Your task to perform on an android device: check the backup settings in the google photos Image 0: 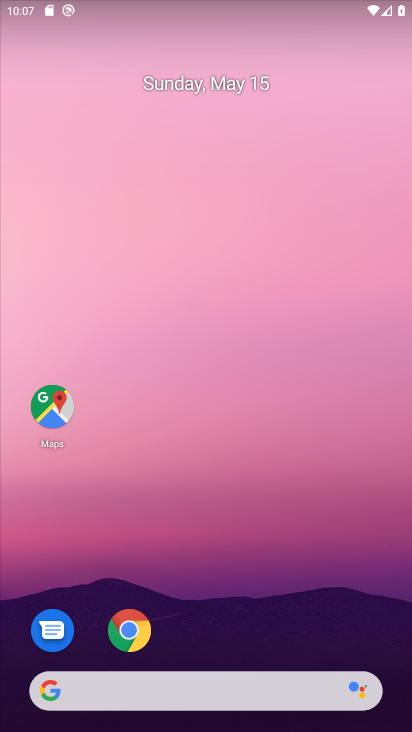
Step 0: drag from (200, 649) to (242, 46)
Your task to perform on an android device: check the backup settings in the google photos Image 1: 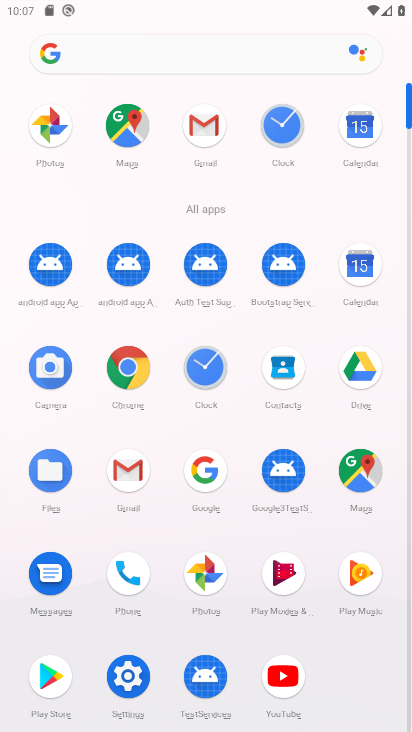
Step 1: click (204, 566)
Your task to perform on an android device: check the backup settings in the google photos Image 2: 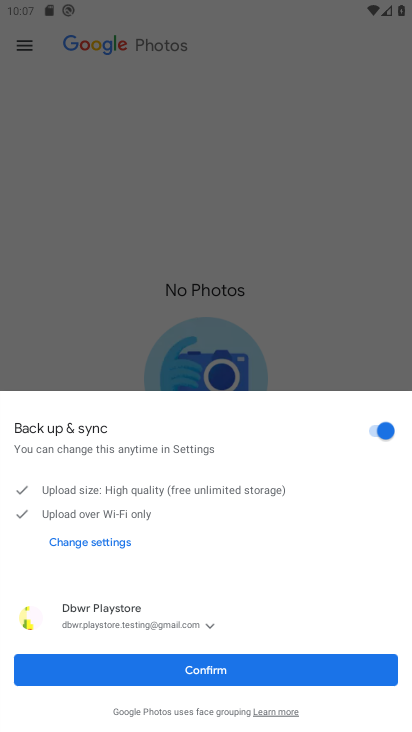
Step 2: click (210, 669)
Your task to perform on an android device: check the backup settings in the google photos Image 3: 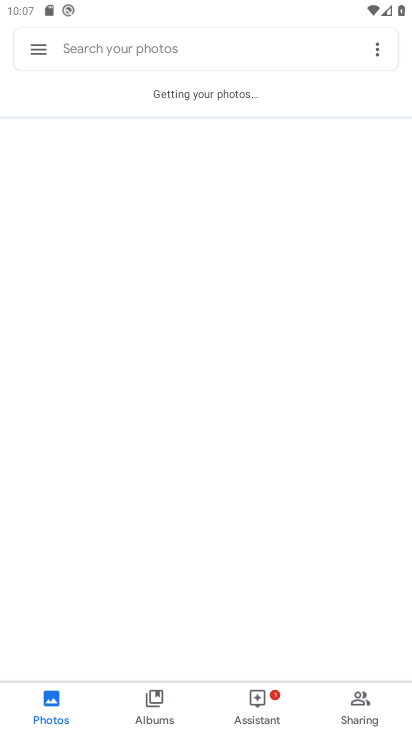
Step 3: click (39, 45)
Your task to perform on an android device: check the backup settings in the google photos Image 4: 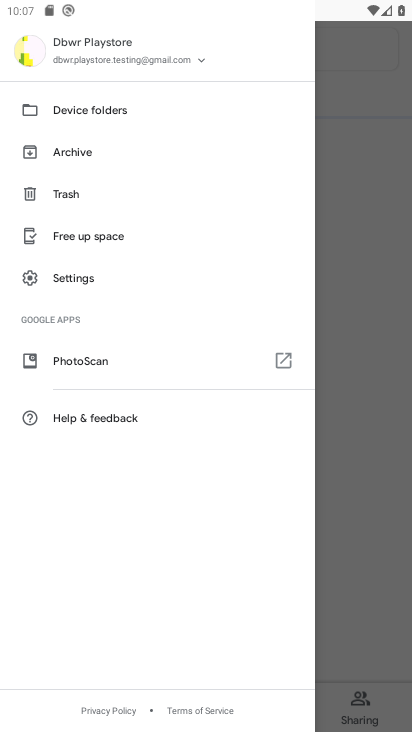
Step 4: click (75, 280)
Your task to perform on an android device: check the backup settings in the google photos Image 5: 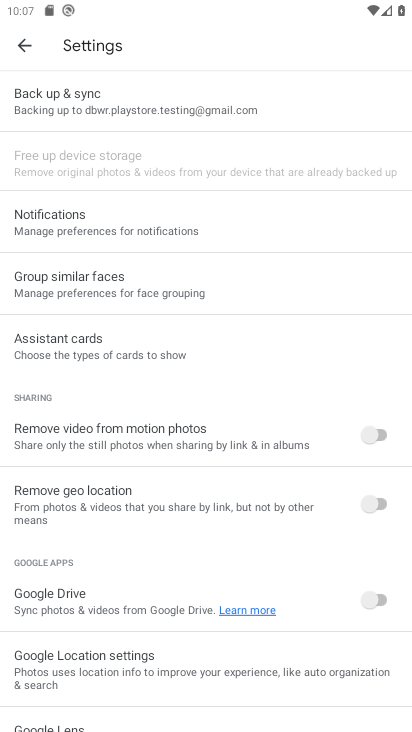
Step 5: click (119, 92)
Your task to perform on an android device: check the backup settings in the google photos Image 6: 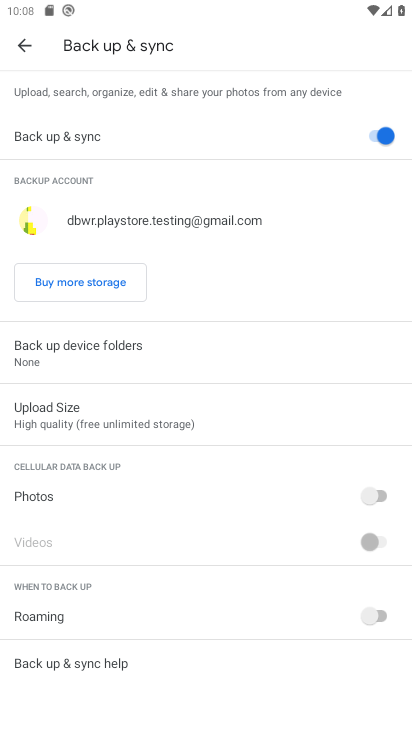
Step 6: task complete